Your task to perform on an android device: Open Youtube and go to "Your channel" Image 0: 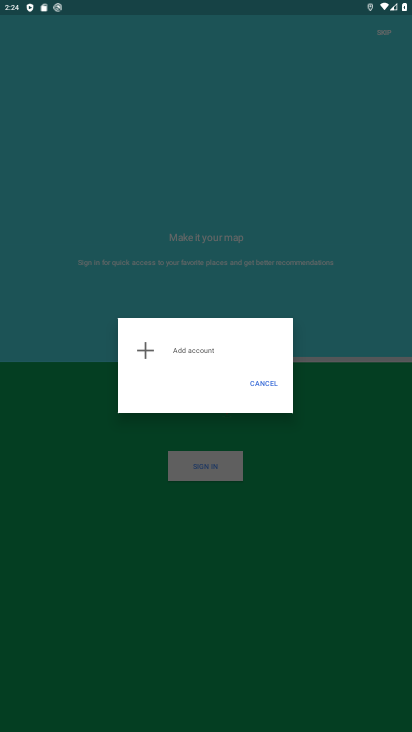
Step 0: click (275, 126)
Your task to perform on an android device: Open Youtube and go to "Your channel" Image 1: 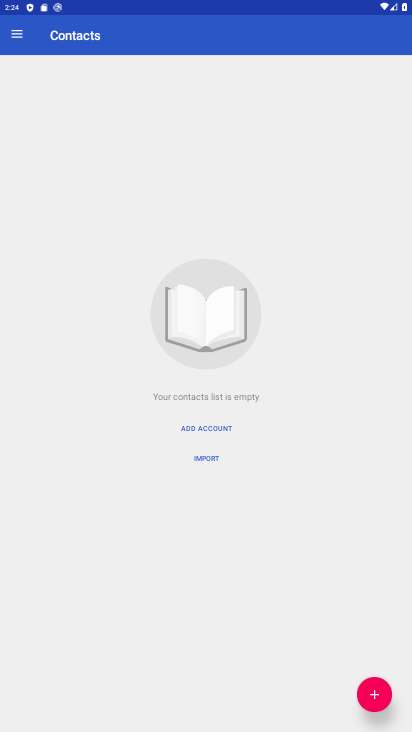
Step 1: press home button
Your task to perform on an android device: Open Youtube and go to "Your channel" Image 2: 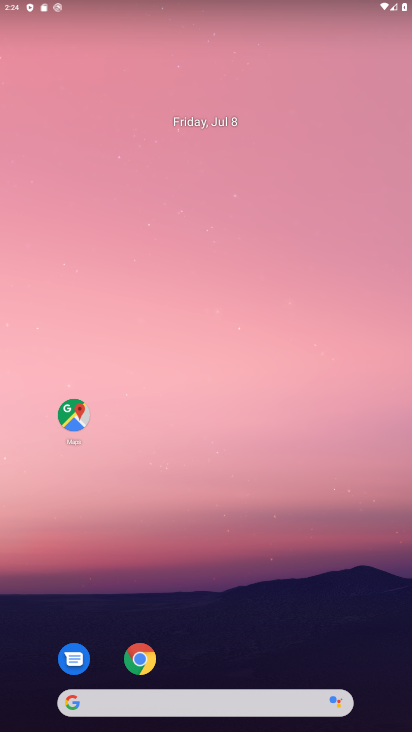
Step 2: drag from (206, 688) to (318, 110)
Your task to perform on an android device: Open Youtube and go to "Your channel" Image 3: 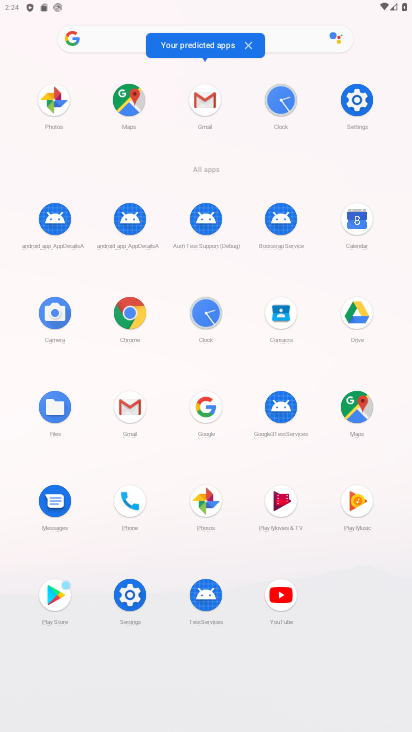
Step 3: click (282, 602)
Your task to perform on an android device: Open Youtube and go to "Your channel" Image 4: 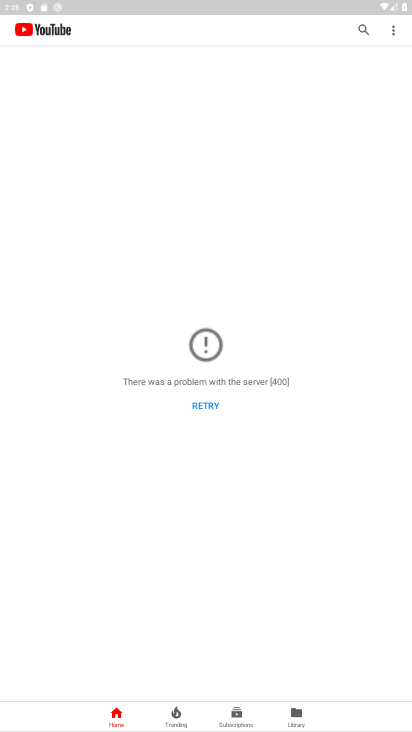
Step 4: click (308, 712)
Your task to perform on an android device: Open Youtube and go to "Your channel" Image 5: 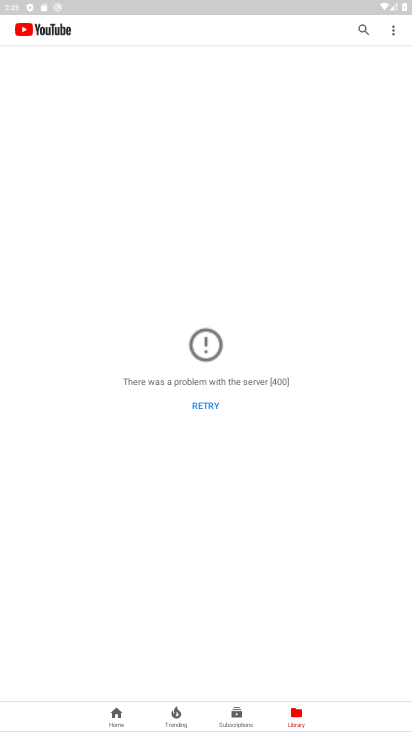
Step 5: task complete